Your task to perform on an android device: toggle javascript in the chrome app Image 0: 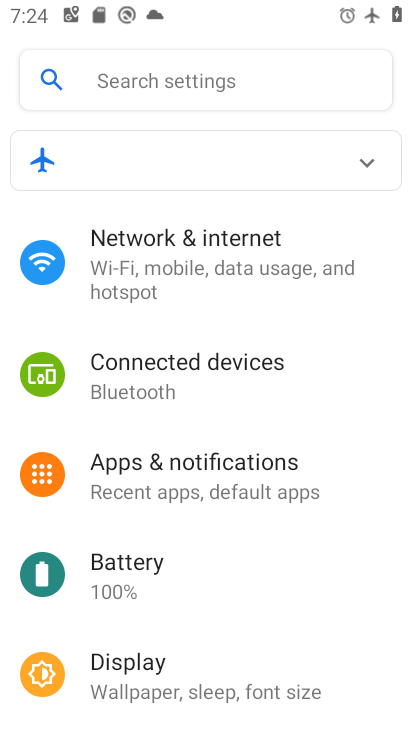
Step 0: press home button
Your task to perform on an android device: toggle javascript in the chrome app Image 1: 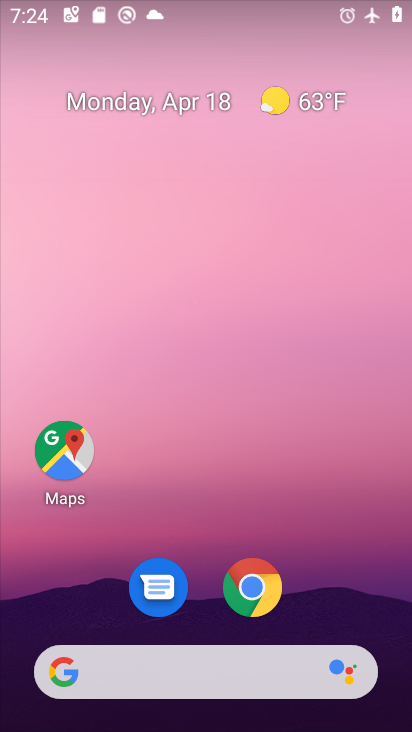
Step 1: click (248, 598)
Your task to perform on an android device: toggle javascript in the chrome app Image 2: 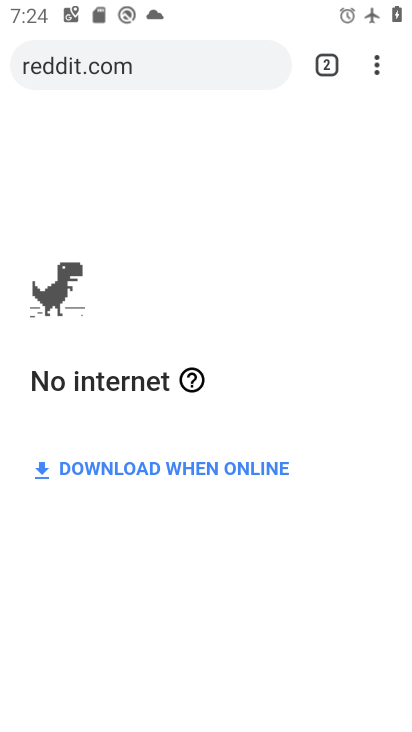
Step 2: press home button
Your task to perform on an android device: toggle javascript in the chrome app Image 3: 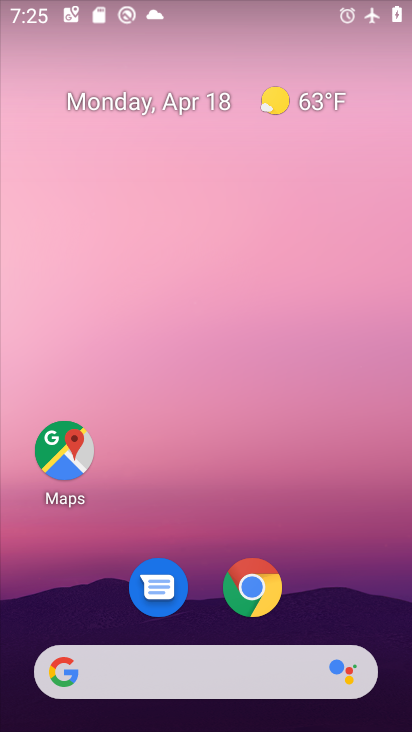
Step 3: click (261, 589)
Your task to perform on an android device: toggle javascript in the chrome app Image 4: 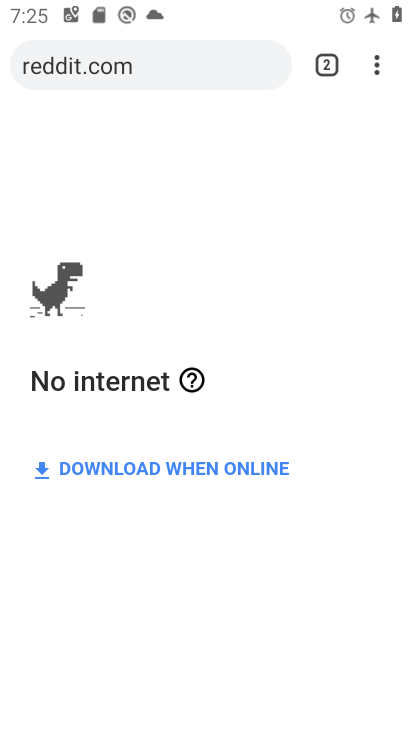
Step 4: click (372, 74)
Your task to perform on an android device: toggle javascript in the chrome app Image 5: 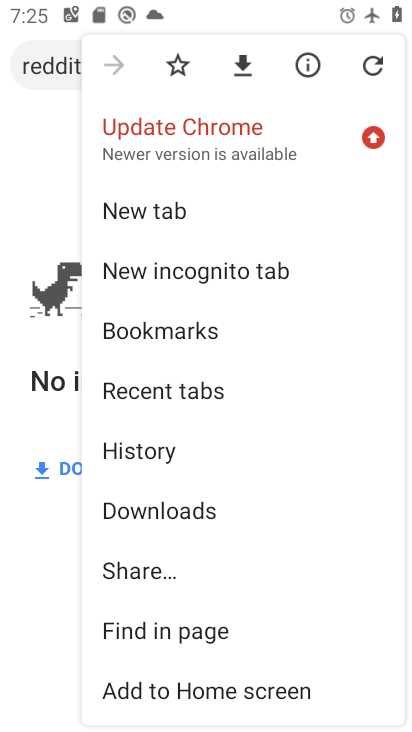
Step 5: drag from (231, 601) to (241, 351)
Your task to perform on an android device: toggle javascript in the chrome app Image 6: 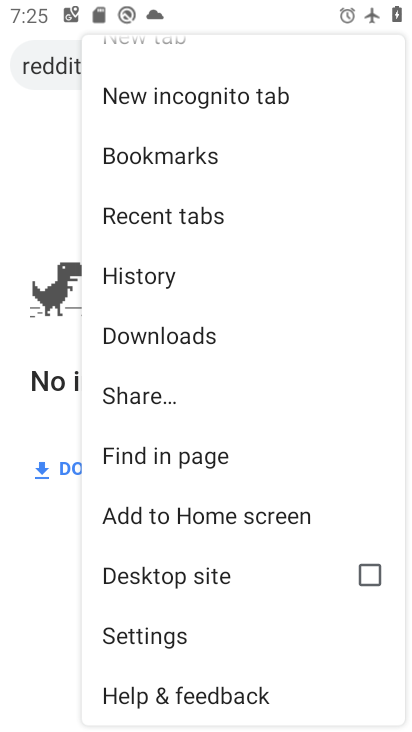
Step 6: click (204, 639)
Your task to perform on an android device: toggle javascript in the chrome app Image 7: 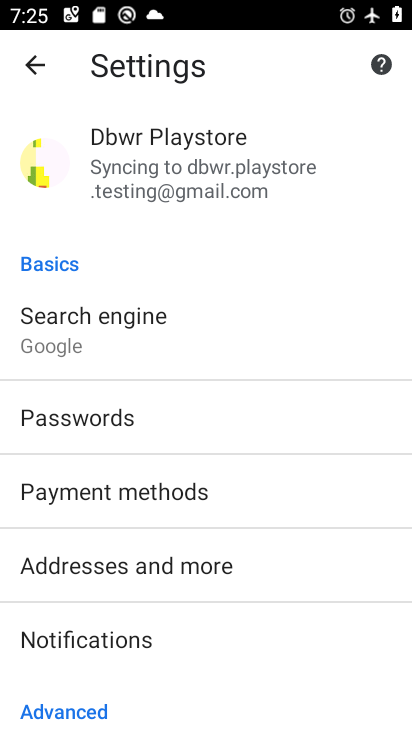
Step 7: drag from (204, 639) to (213, 208)
Your task to perform on an android device: toggle javascript in the chrome app Image 8: 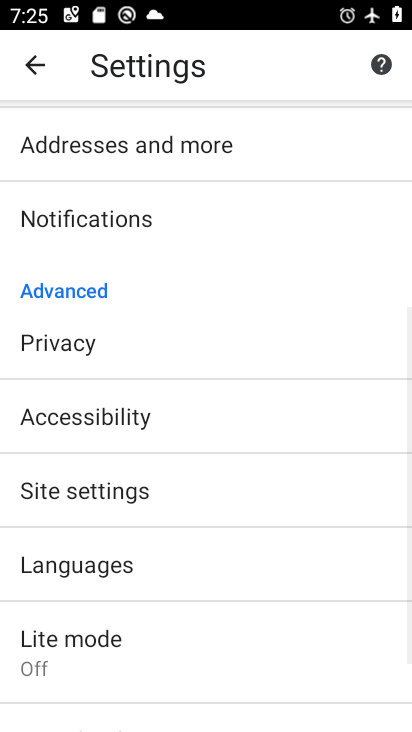
Step 8: click (231, 495)
Your task to perform on an android device: toggle javascript in the chrome app Image 9: 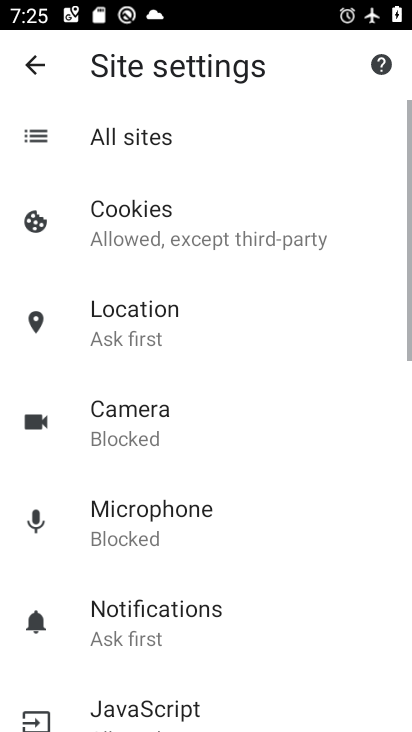
Step 9: drag from (238, 600) to (267, 271)
Your task to perform on an android device: toggle javascript in the chrome app Image 10: 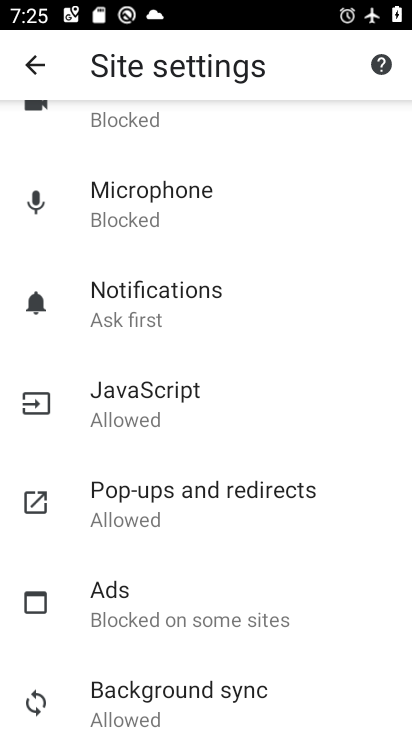
Step 10: click (263, 409)
Your task to perform on an android device: toggle javascript in the chrome app Image 11: 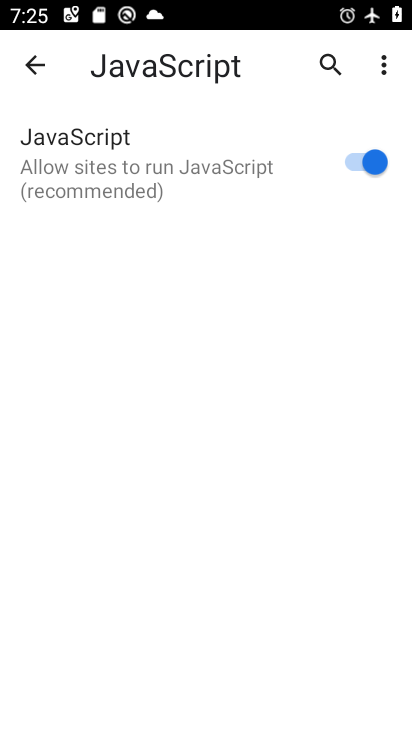
Step 11: click (370, 183)
Your task to perform on an android device: toggle javascript in the chrome app Image 12: 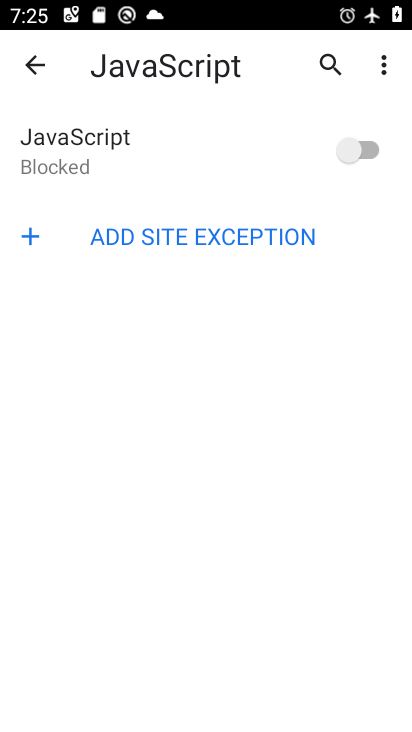
Step 12: task complete